Your task to perform on an android device: Open location settings Image 0: 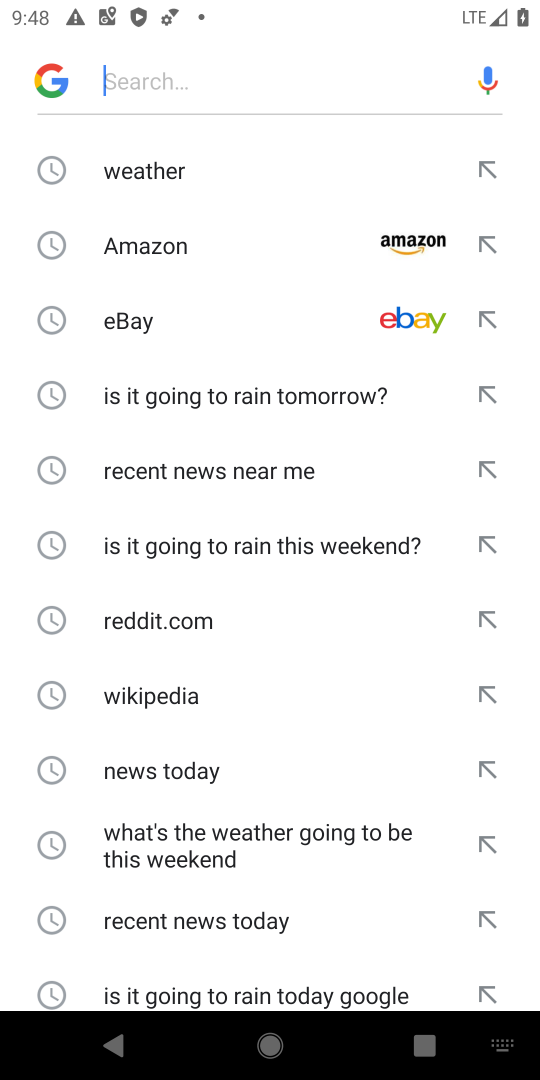
Step 0: press back button
Your task to perform on an android device: Open location settings Image 1: 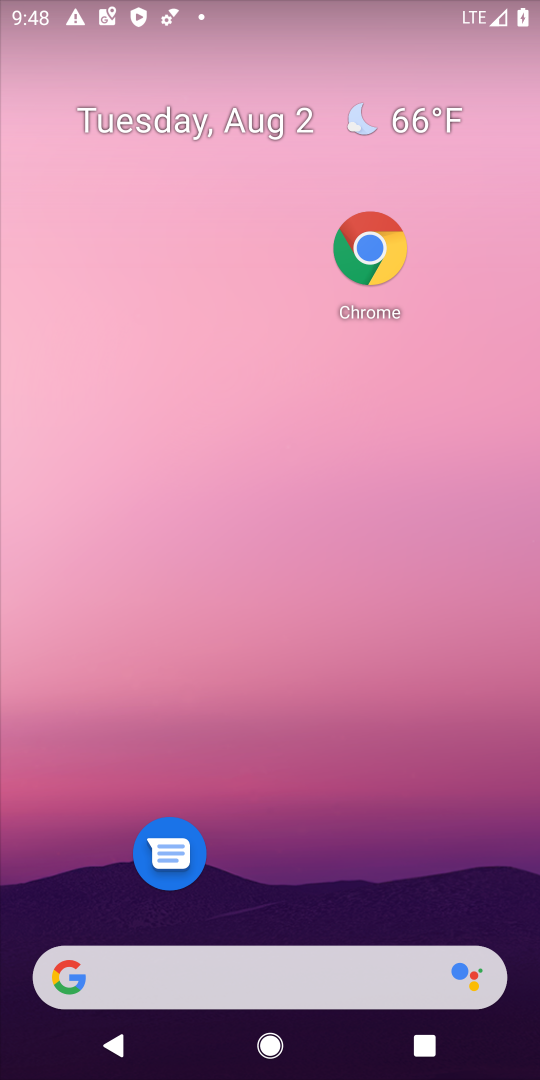
Step 1: drag from (237, 909) to (228, 137)
Your task to perform on an android device: Open location settings Image 2: 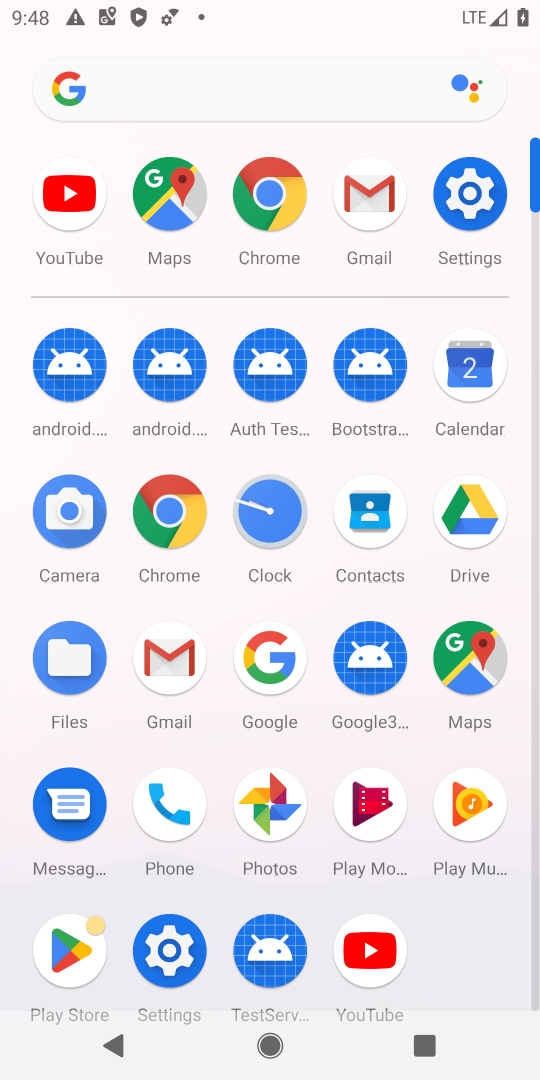
Step 2: click (450, 232)
Your task to perform on an android device: Open location settings Image 3: 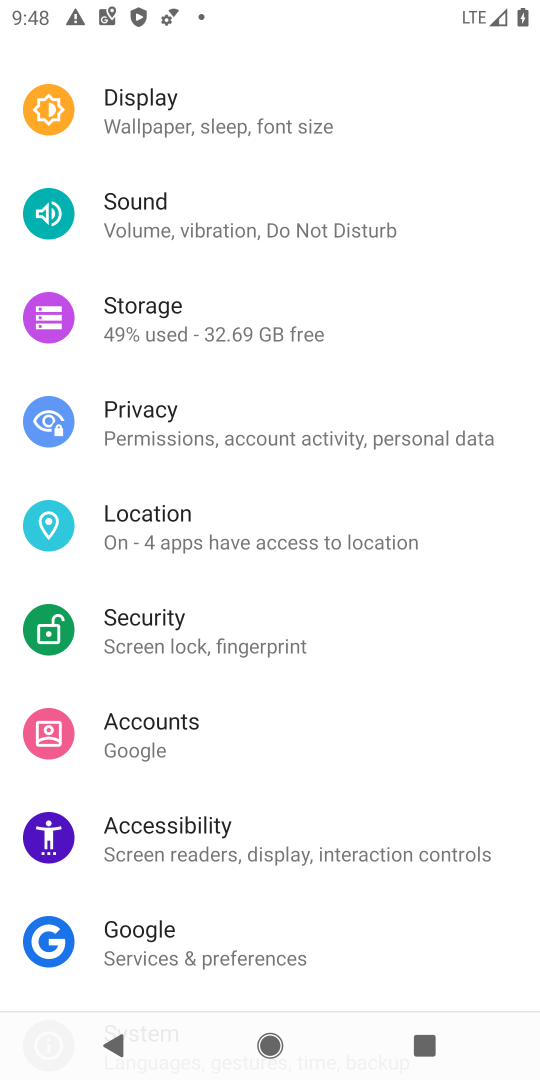
Step 3: click (148, 515)
Your task to perform on an android device: Open location settings Image 4: 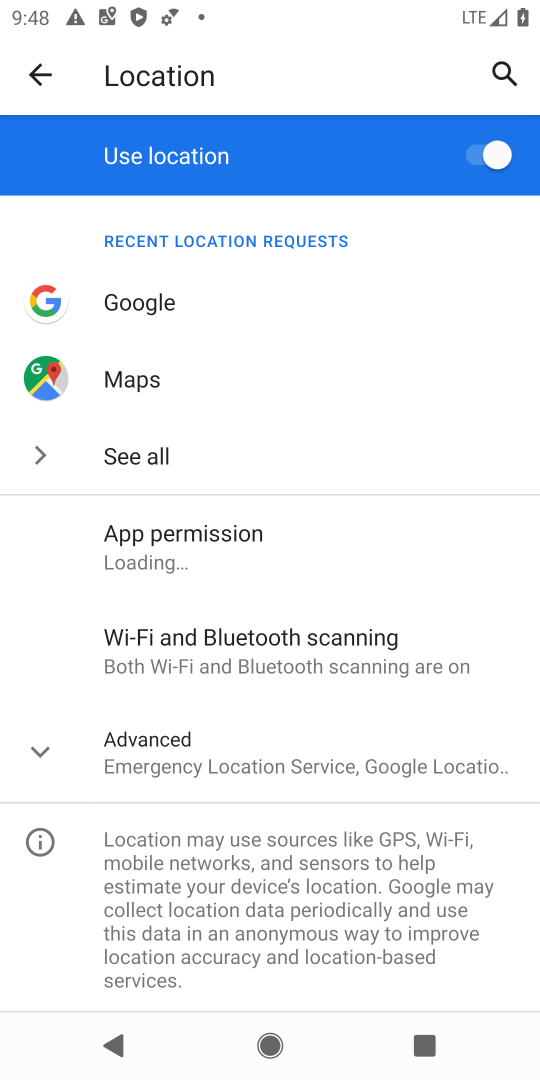
Step 4: click (206, 739)
Your task to perform on an android device: Open location settings Image 5: 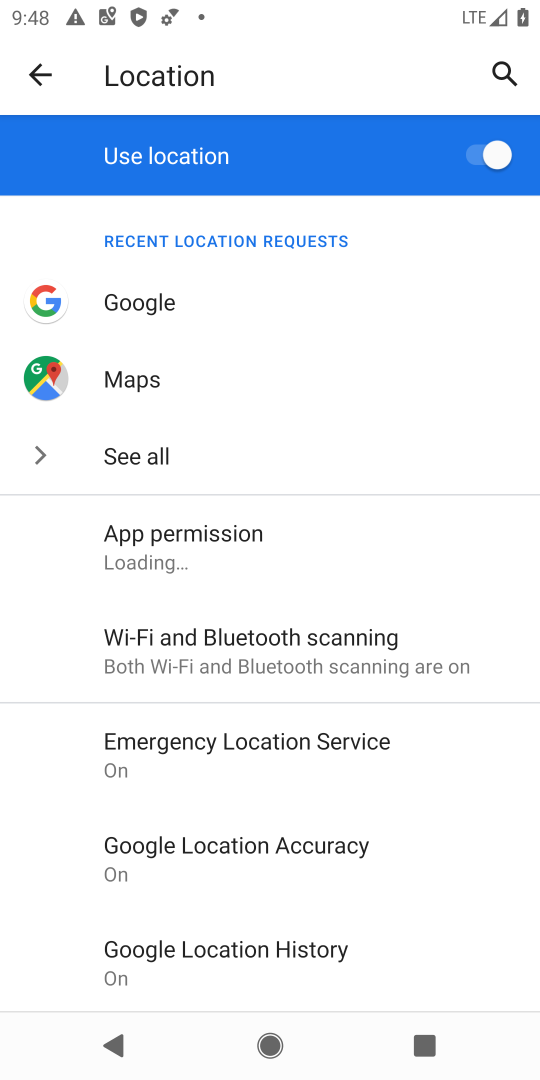
Step 5: task complete